Your task to perform on an android device: snooze an email in the gmail app Image 0: 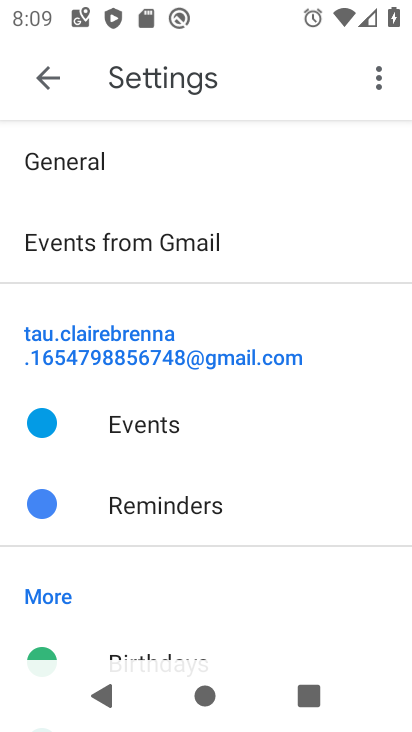
Step 0: press home button
Your task to perform on an android device: snooze an email in the gmail app Image 1: 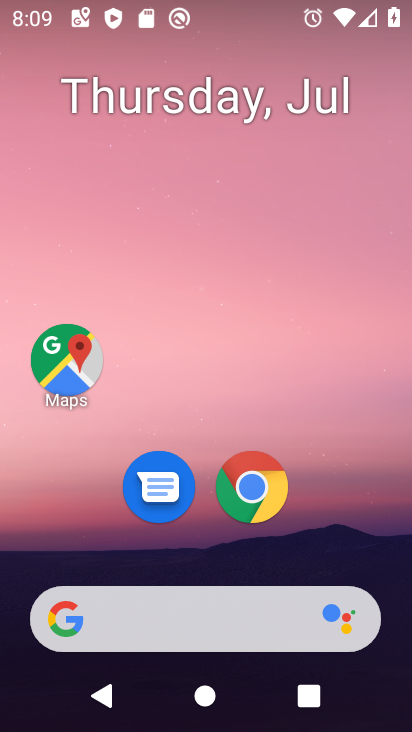
Step 1: drag from (191, 629) to (260, 232)
Your task to perform on an android device: snooze an email in the gmail app Image 2: 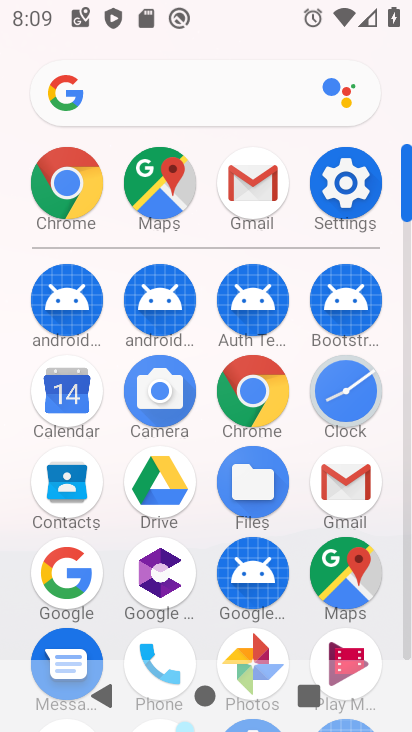
Step 2: click (344, 487)
Your task to perform on an android device: snooze an email in the gmail app Image 3: 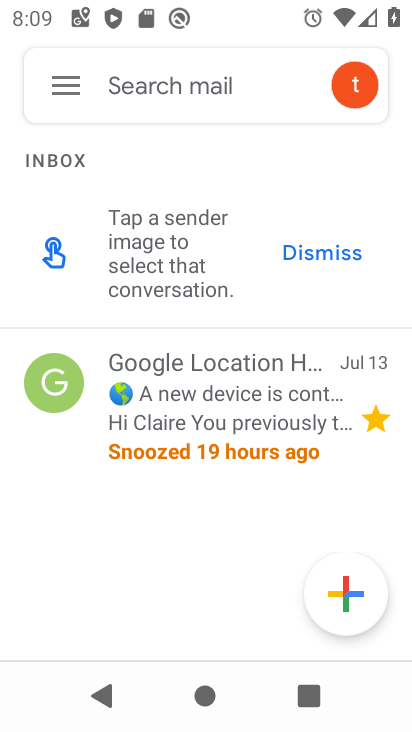
Step 3: click (169, 424)
Your task to perform on an android device: snooze an email in the gmail app Image 4: 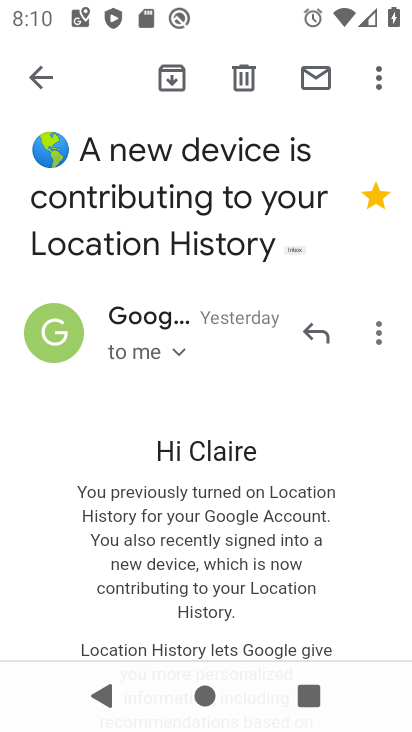
Step 4: click (379, 92)
Your task to perform on an android device: snooze an email in the gmail app Image 5: 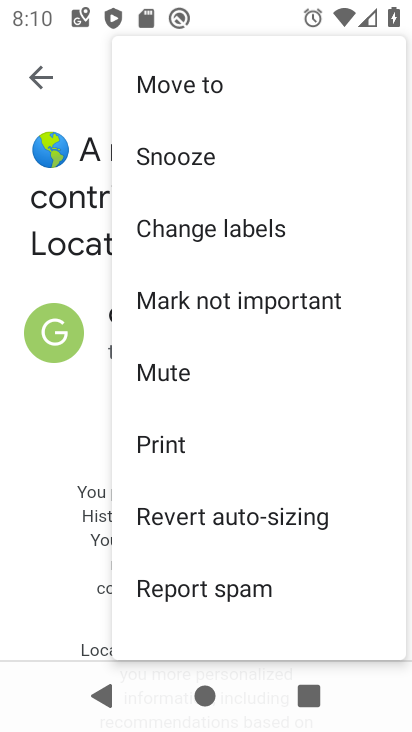
Step 5: click (195, 175)
Your task to perform on an android device: snooze an email in the gmail app Image 6: 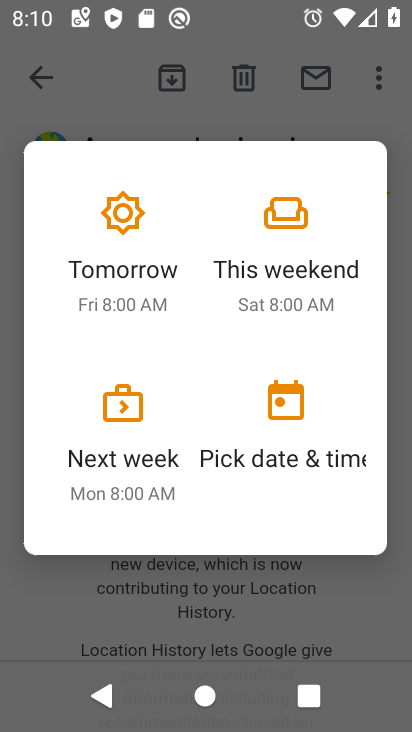
Step 6: click (278, 264)
Your task to perform on an android device: snooze an email in the gmail app Image 7: 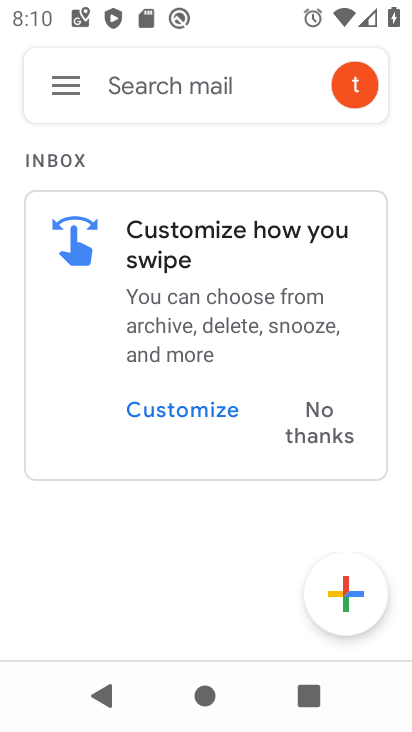
Step 7: task complete